Your task to perform on an android device: toggle notification dots Image 0: 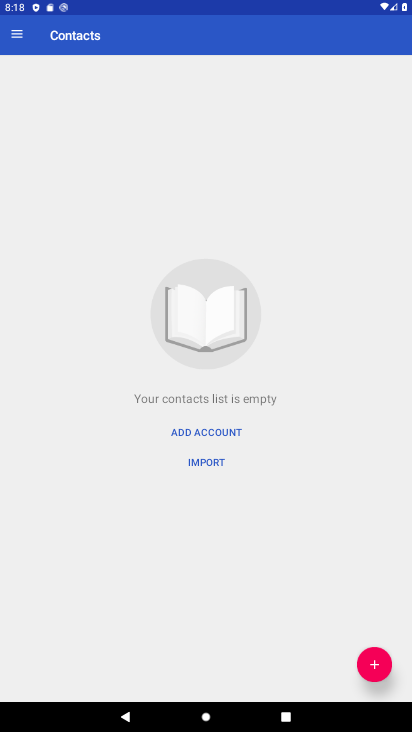
Step 0: press home button
Your task to perform on an android device: toggle notification dots Image 1: 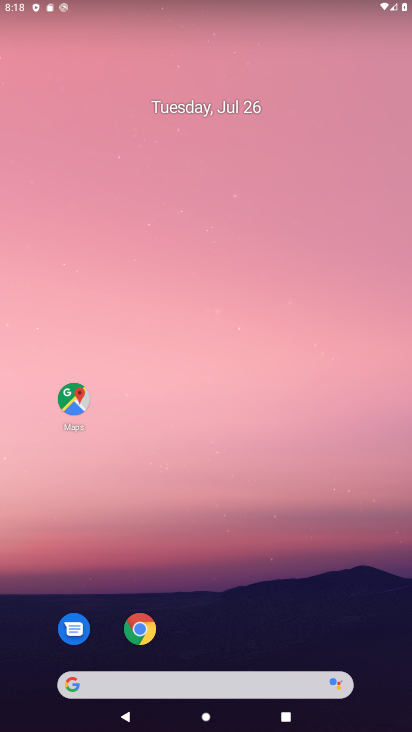
Step 1: drag from (232, 633) to (198, 88)
Your task to perform on an android device: toggle notification dots Image 2: 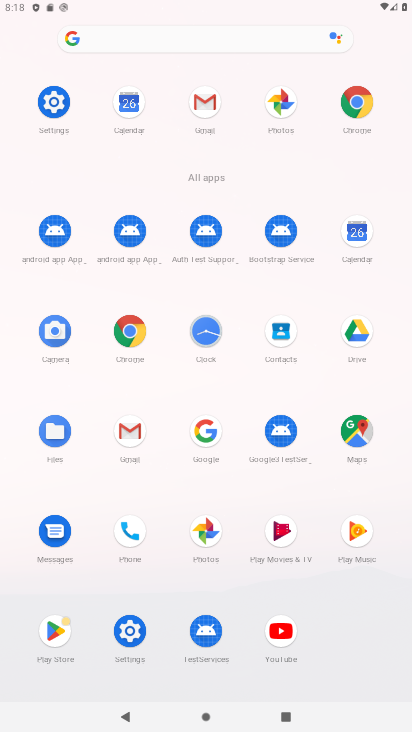
Step 2: click (57, 88)
Your task to perform on an android device: toggle notification dots Image 3: 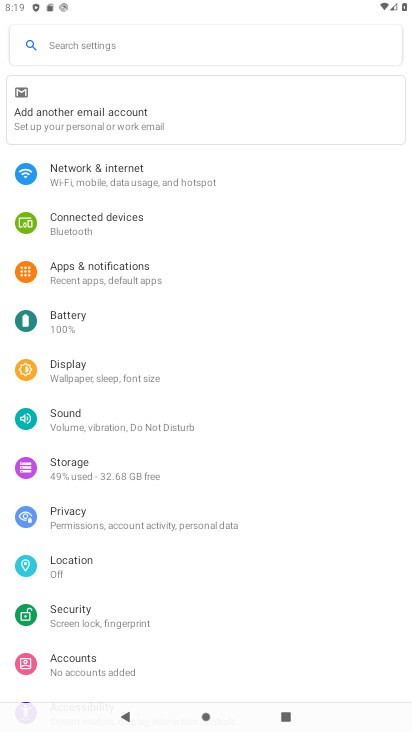
Step 3: click (125, 284)
Your task to perform on an android device: toggle notification dots Image 4: 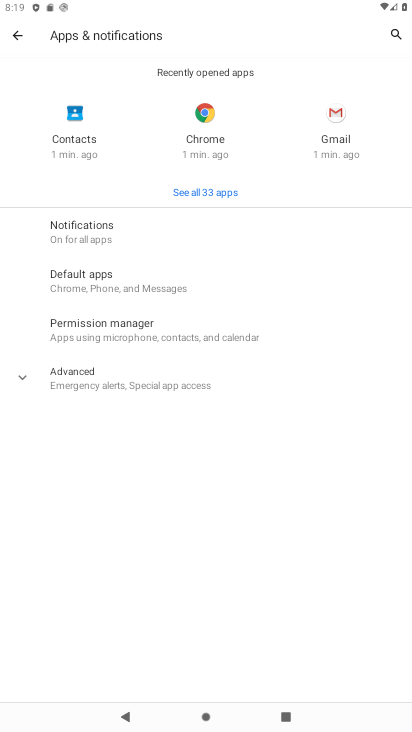
Step 4: click (67, 240)
Your task to perform on an android device: toggle notification dots Image 5: 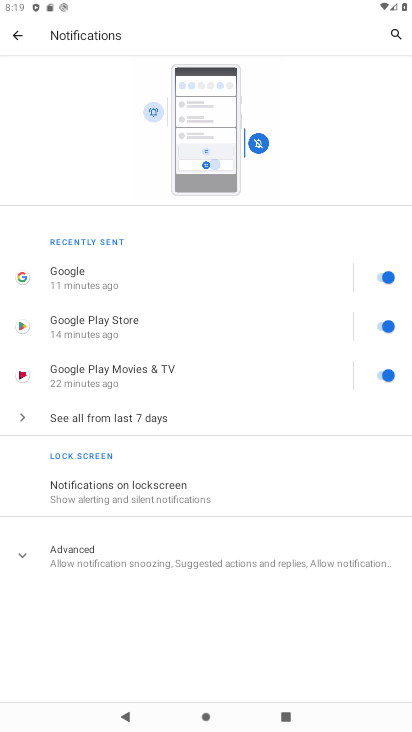
Step 5: click (130, 552)
Your task to perform on an android device: toggle notification dots Image 6: 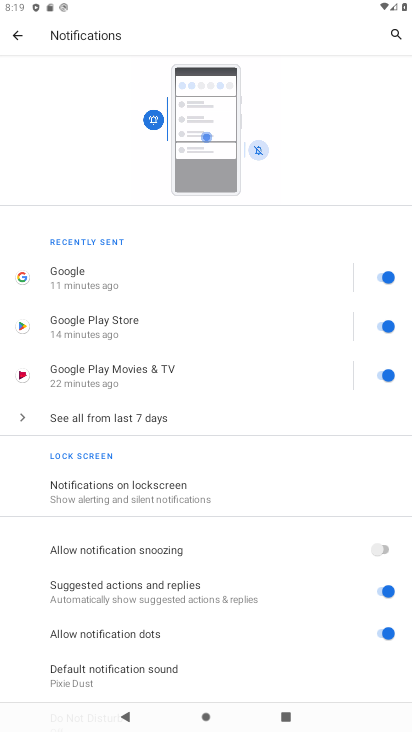
Step 6: click (379, 628)
Your task to perform on an android device: toggle notification dots Image 7: 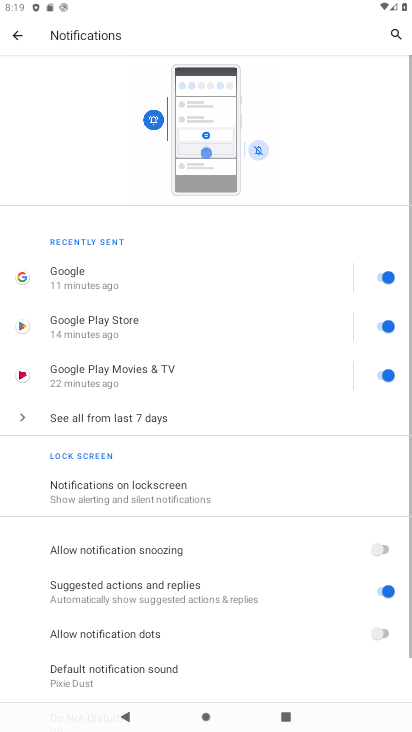
Step 7: task complete